Your task to perform on an android device: What's the weather? Image 0: 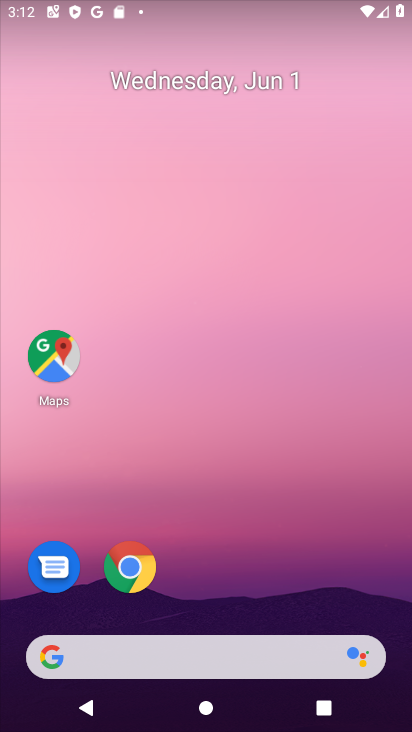
Step 0: drag from (35, 224) to (365, 202)
Your task to perform on an android device: What's the weather? Image 1: 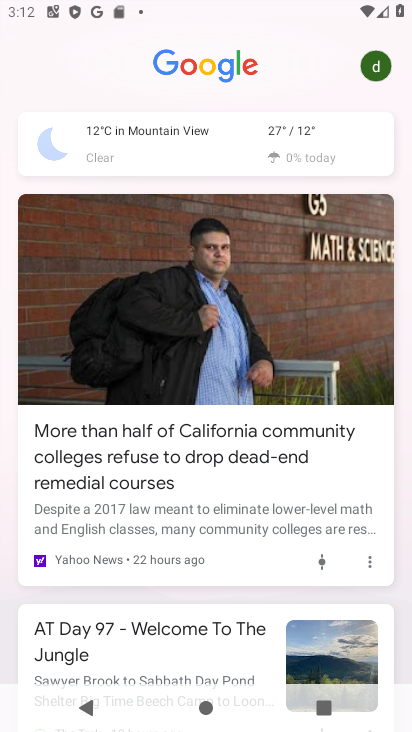
Step 1: click (270, 166)
Your task to perform on an android device: What's the weather? Image 2: 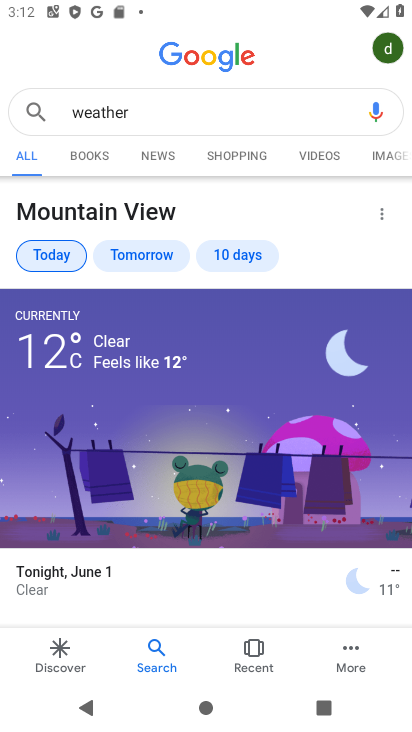
Step 2: task complete